Your task to perform on an android device: turn on data saver in the chrome app Image 0: 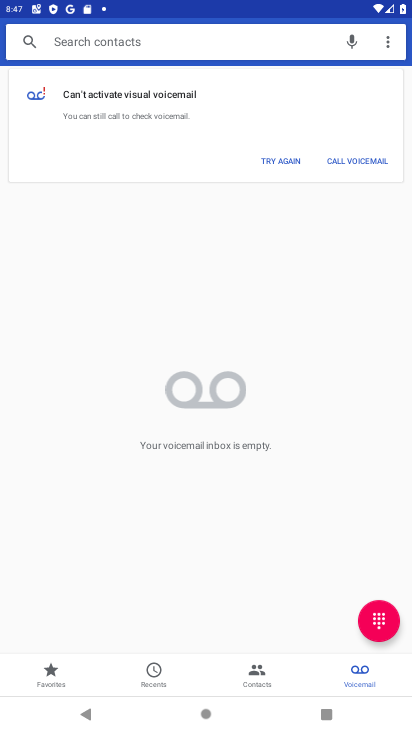
Step 0: press home button
Your task to perform on an android device: turn on data saver in the chrome app Image 1: 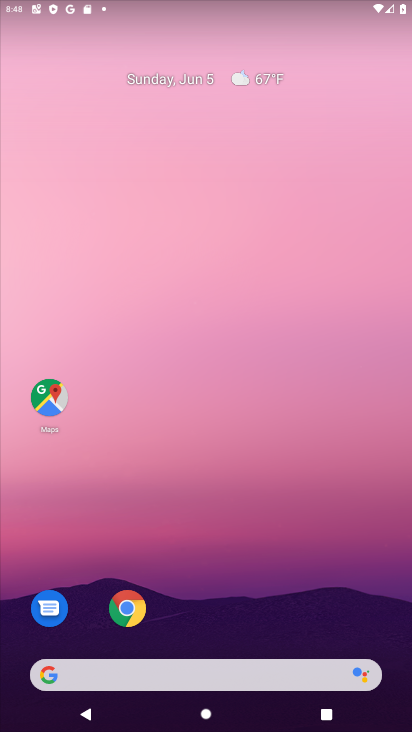
Step 1: drag from (49, 719) to (0, 641)
Your task to perform on an android device: turn on data saver in the chrome app Image 2: 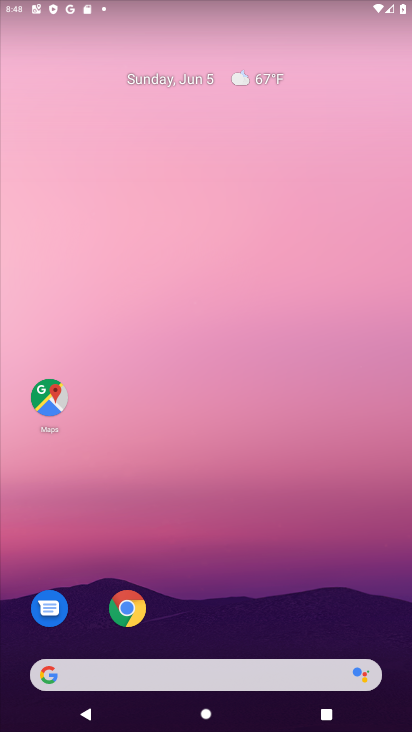
Step 2: click (127, 613)
Your task to perform on an android device: turn on data saver in the chrome app Image 3: 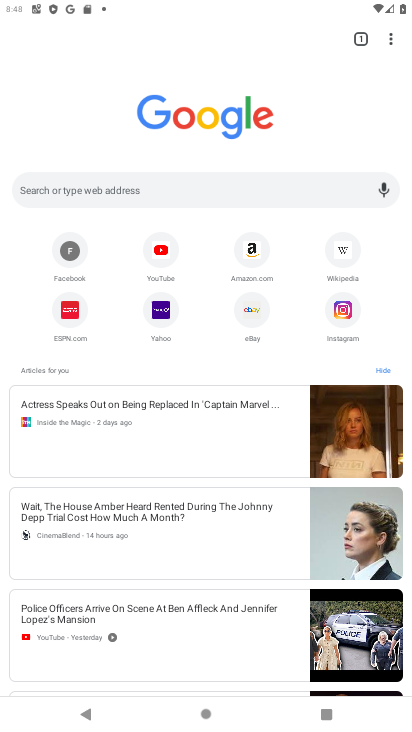
Step 3: click (390, 36)
Your task to perform on an android device: turn on data saver in the chrome app Image 4: 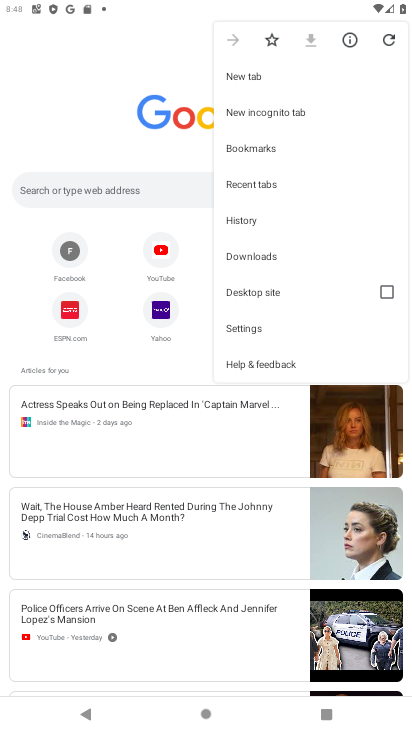
Step 4: click (243, 319)
Your task to perform on an android device: turn on data saver in the chrome app Image 5: 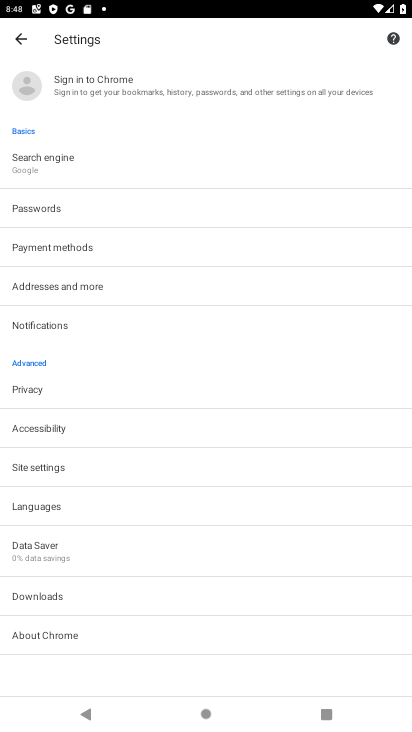
Step 5: click (58, 552)
Your task to perform on an android device: turn on data saver in the chrome app Image 6: 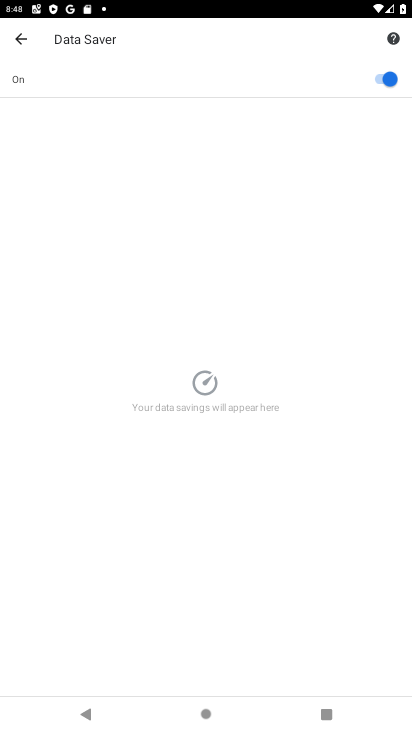
Step 6: task complete